Your task to perform on an android device: uninstall "Calculator" Image 0: 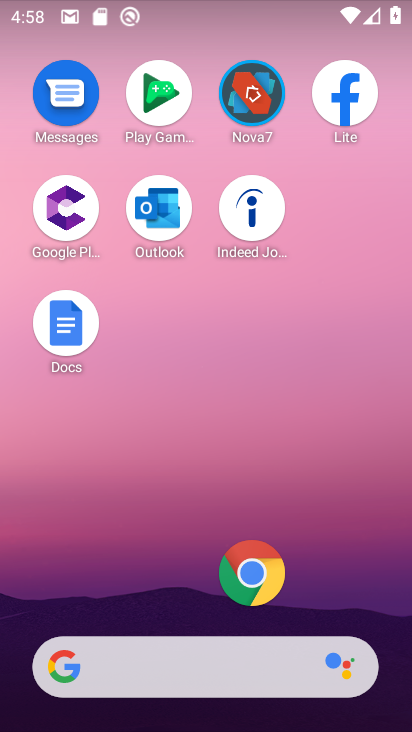
Step 0: drag from (190, 474) to (201, 27)
Your task to perform on an android device: uninstall "Calculator" Image 1: 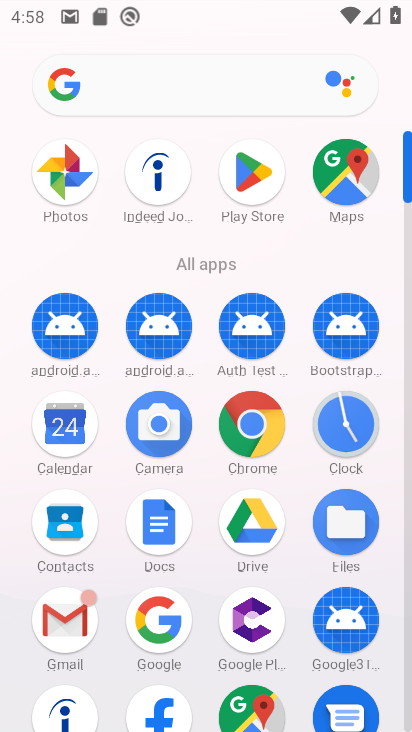
Step 1: click (267, 182)
Your task to perform on an android device: uninstall "Calculator" Image 2: 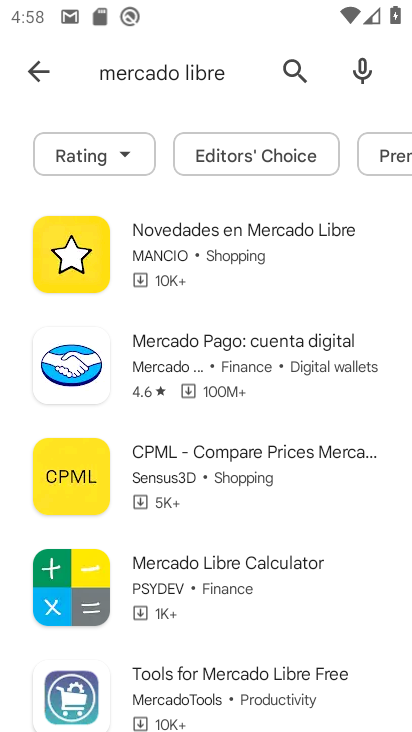
Step 2: click (29, 71)
Your task to perform on an android device: uninstall "Calculator" Image 3: 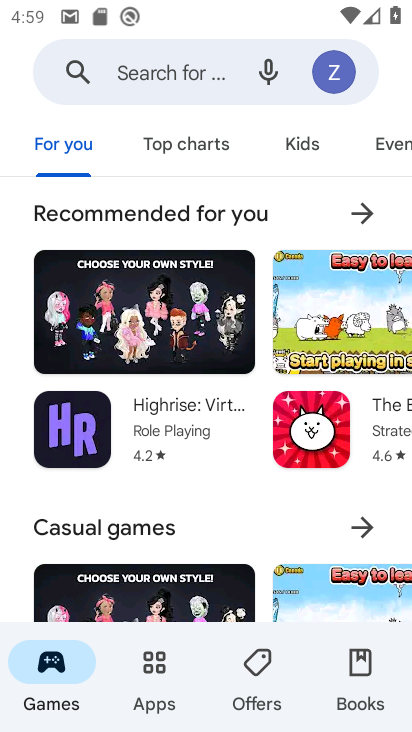
Step 3: click (148, 71)
Your task to perform on an android device: uninstall "Calculator" Image 4: 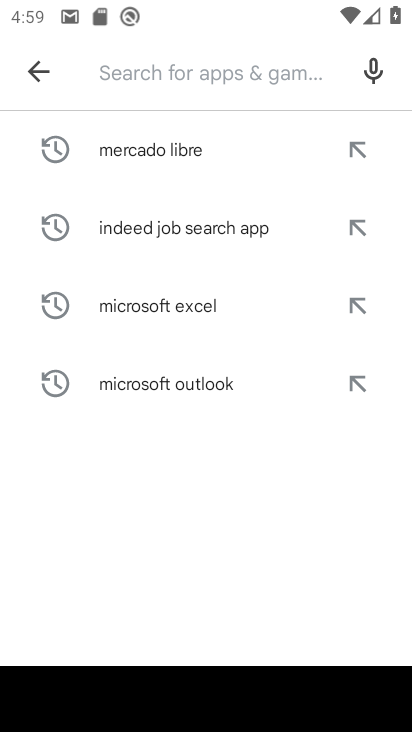
Step 4: type "Calculator"
Your task to perform on an android device: uninstall "Calculator" Image 5: 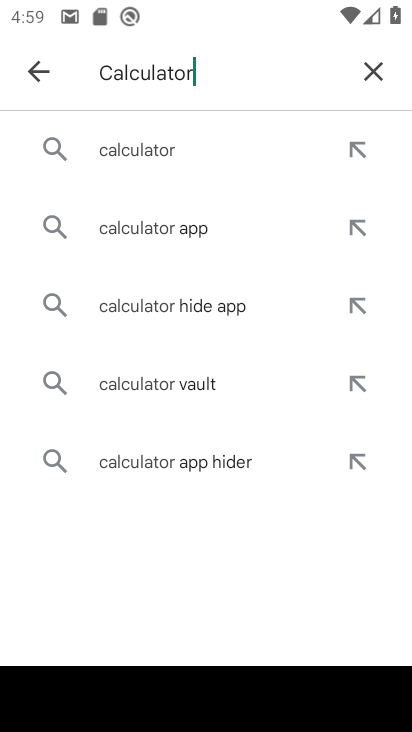
Step 5: click (126, 155)
Your task to perform on an android device: uninstall "Calculator" Image 6: 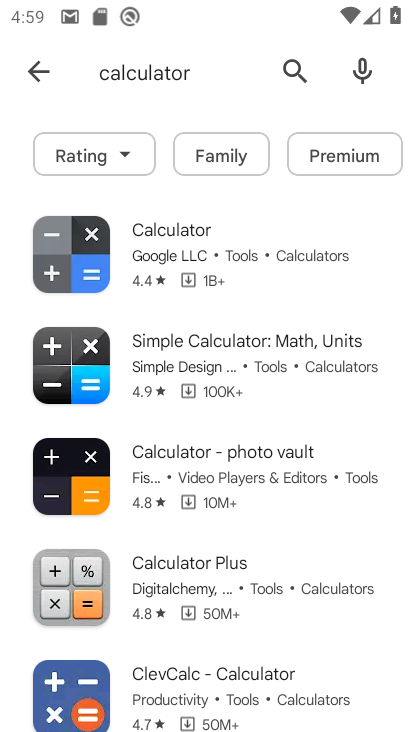
Step 6: click (168, 261)
Your task to perform on an android device: uninstall "Calculator" Image 7: 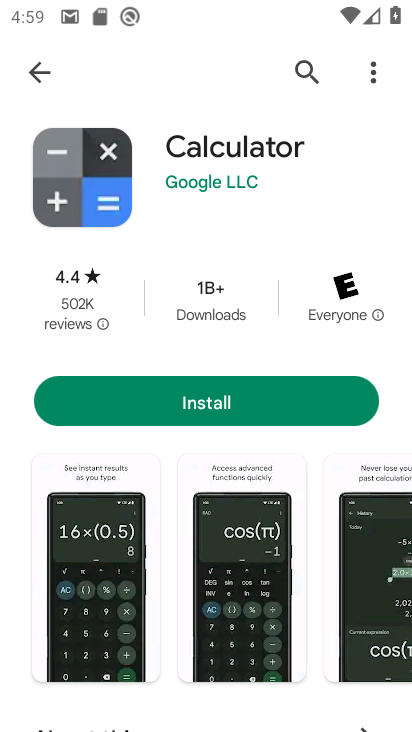
Step 7: task complete